Your task to perform on an android device: turn on wifi Image 0: 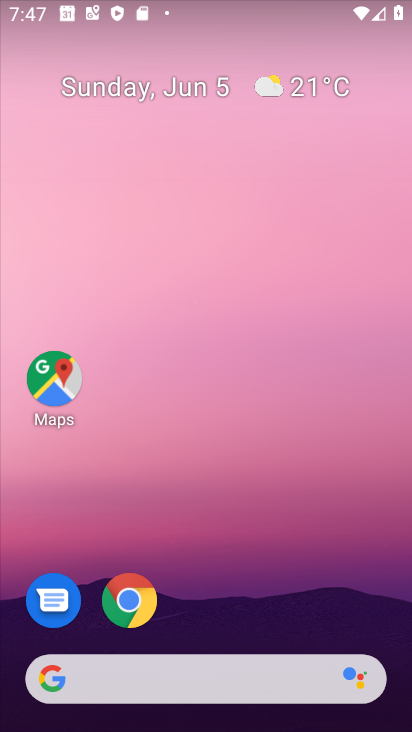
Step 0: drag from (212, 584) to (204, 0)
Your task to perform on an android device: turn on wifi Image 1: 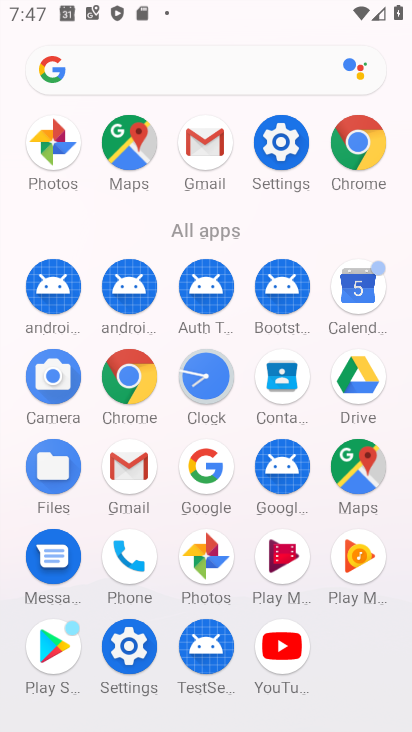
Step 1: click (285, 149)
Your task to perform on an android device: turn on wifi Image 2: 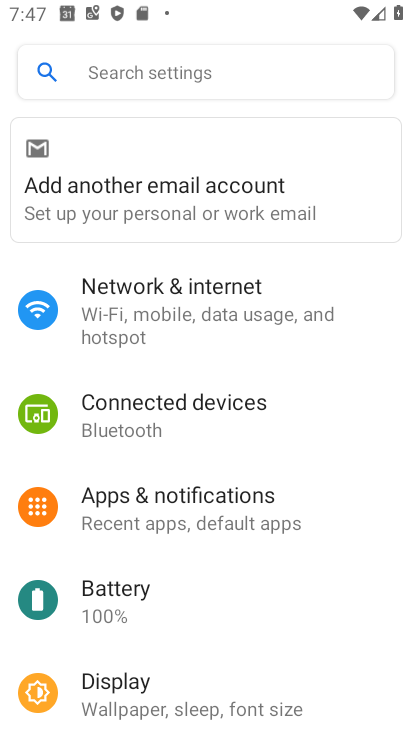
Step 2: click (239, 300)
Your task to perform on an android device: turn on wifi Image 3: 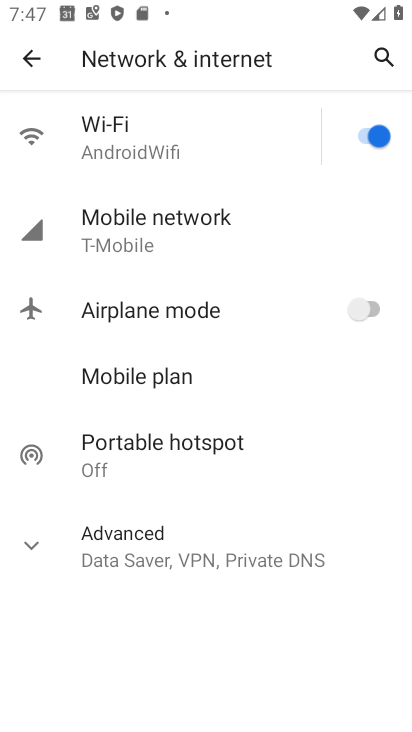
Step 3: task complete